Your task to perform on an android device: Show the shopping cart on newegg. Add "usb-c" to the cart on newegg, then select checkout. Image 0: 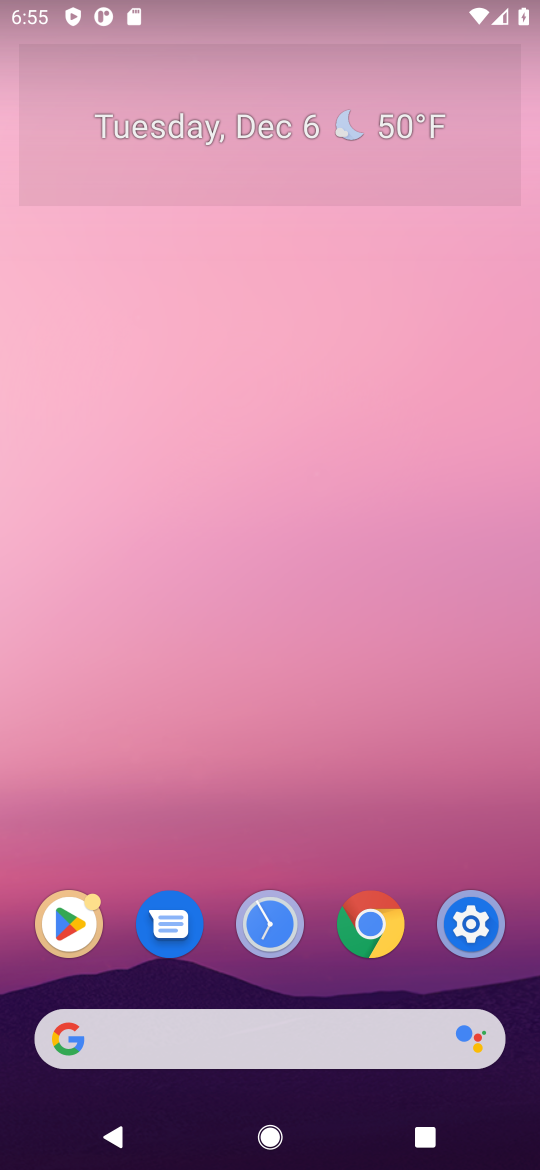
Step 0: click (334, 1003)
Your task to perform on an android device: Show the shopping cart on newegg. Add "usb-c" to the cart on newegg, then select checkout. Image 1: 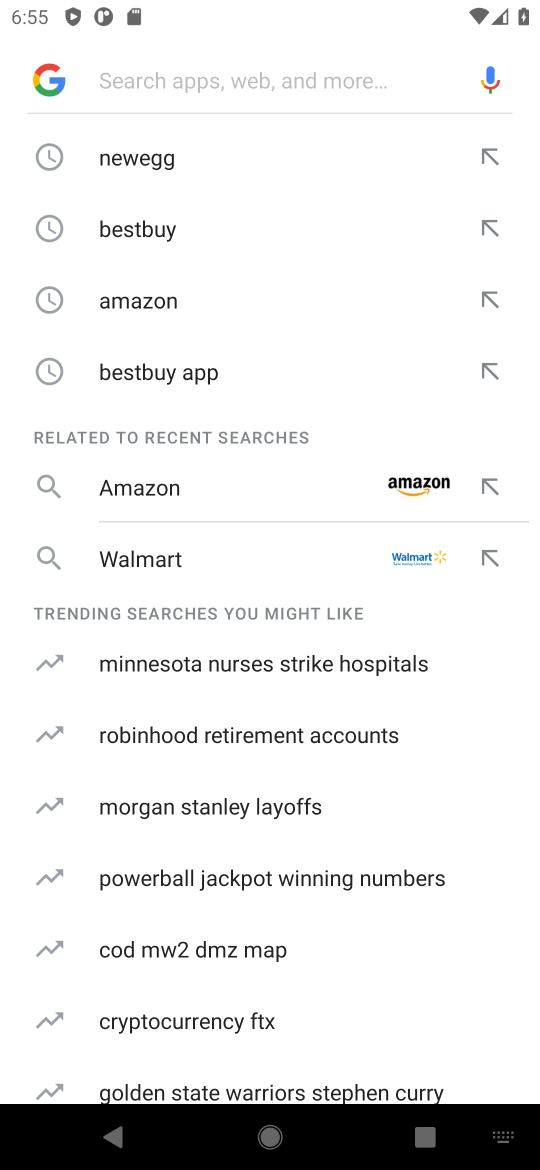
Step 1: type "newegg"
Your task to perform on an android device: Show the shopping cart on newegg. Add "usb-c" to the cart on newegg, then select checkout. Image 2: 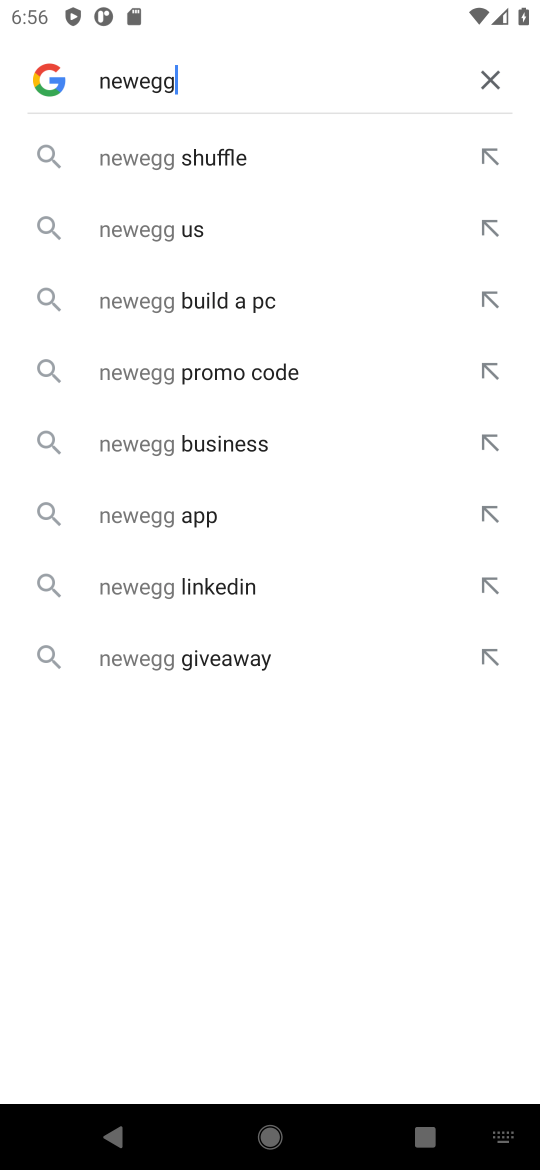
Step 2: click (168, 176)
Your task to perform on an android device: Show the shopping cart on newegg. Add "usb-c" to the cart on newegg, then select checkout. Image 3: 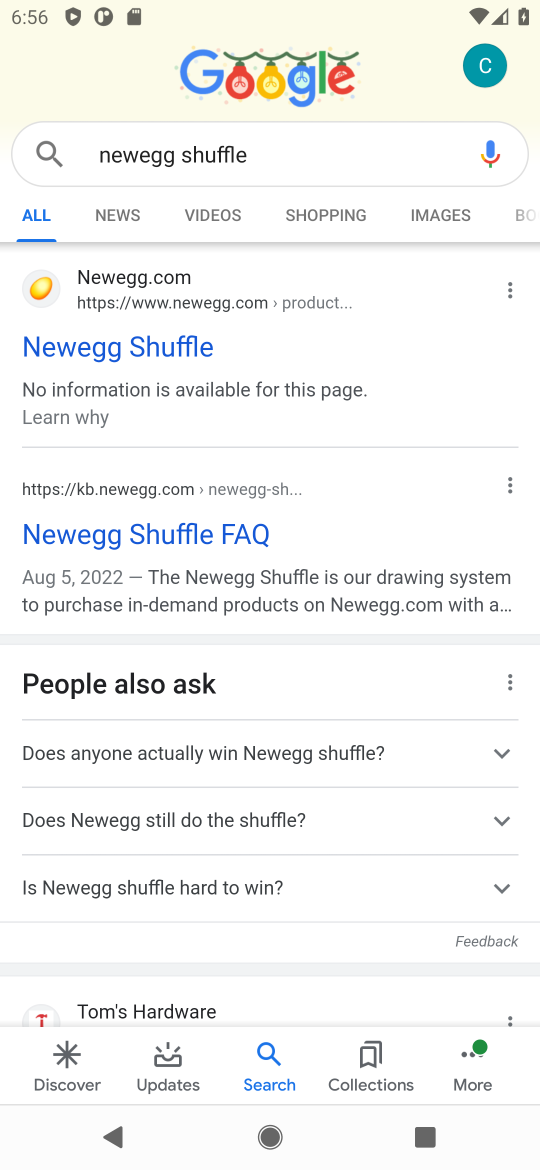
Step 3: click (182, 345)
Your task to perform on an android device: Show the shopping cart on newegg. Add "usb-c" to the cart on newegg, then select checkout. Image 4: 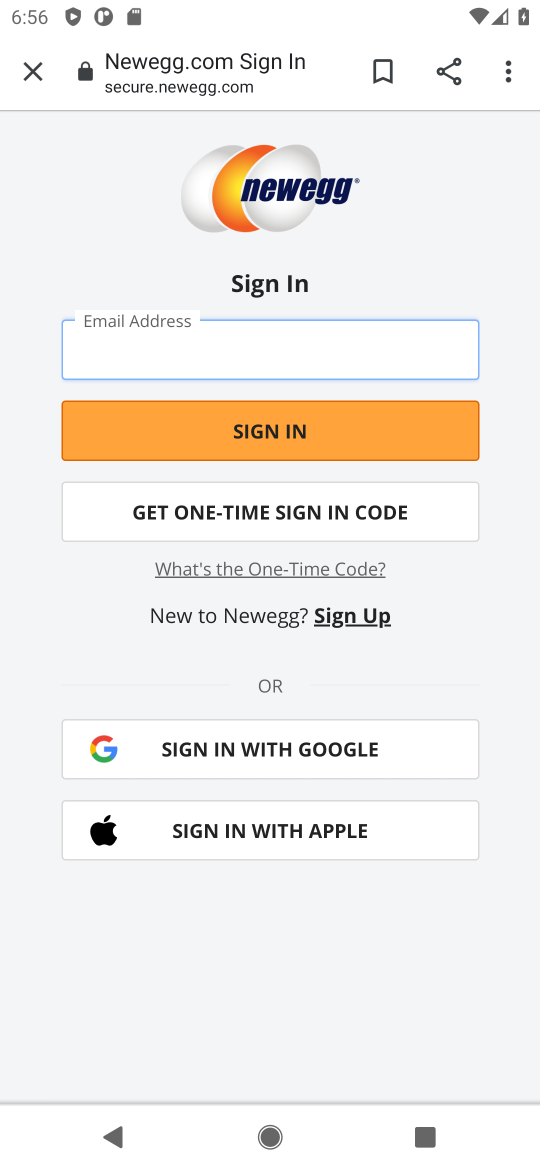
Step 4: type "usb-c"
Your task to perform on an android device: Show the shopping cart on newegg. Add "usb-c" to the cart on newegg, then select checkout. Image 5: 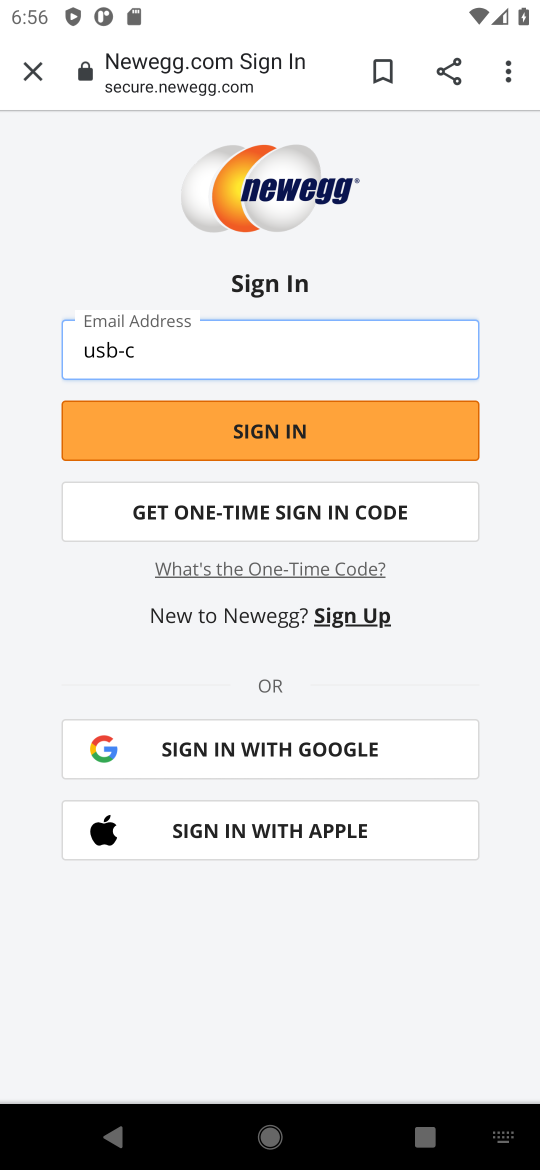
Step 5: task complete